Your task to perform on an android device: Go to wifi settings Image 0: 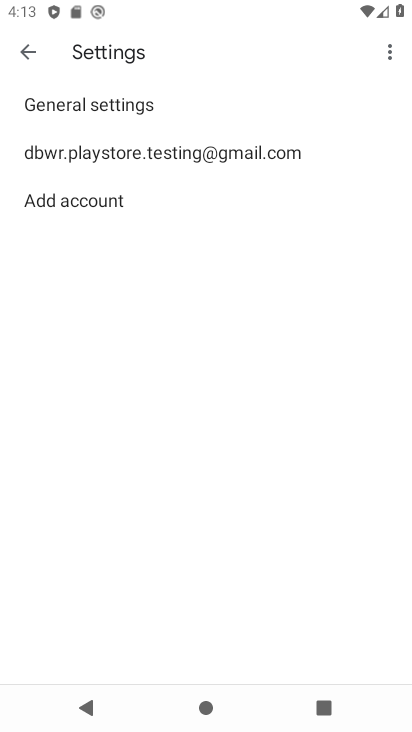
Step 0: press home button
Your task to perform on an android device: Go to wifi settings Image 1: 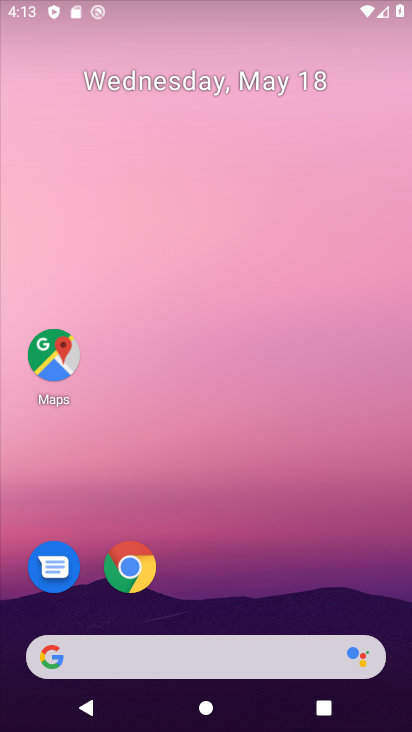
Step 1: drag from (173, 656) to (173, 217)
Your task to perform on an android device: Go to wifi settings Image 2: 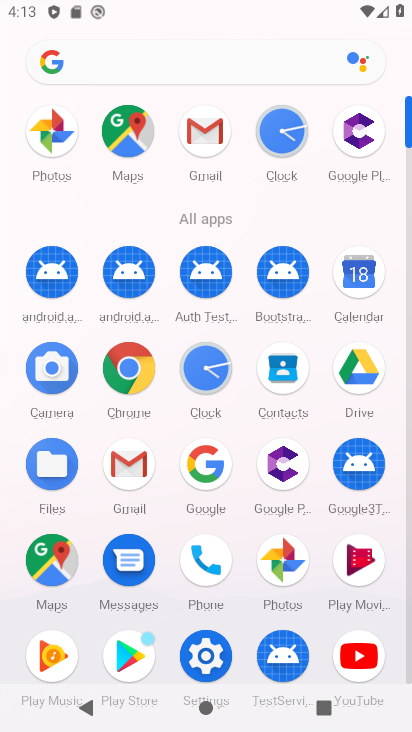
Step 2: click (211, 648)
Your task to perform on an android device: Go to wifi settings Image 3: 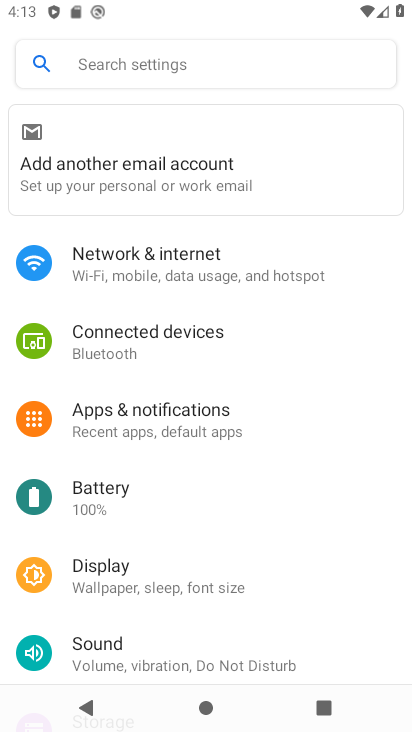
Step 3: click (159, 265)
Your task to perform on an android device: Go to wifi settings Image 4: 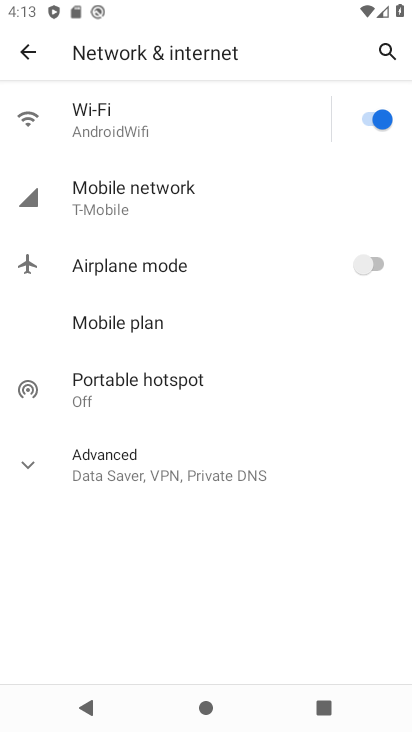
Step 4: click (121, 125)
Your task to perform on an android device: Go to wifi settings Image 5: 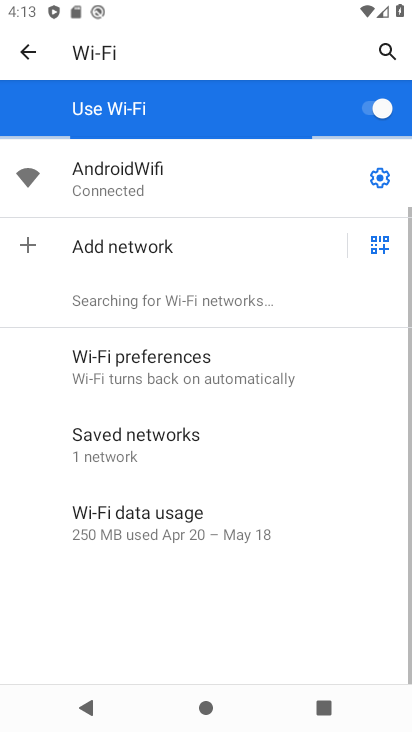
Step 5: click (383, 180)
Your task to perform on an android device: Go to wifi settings Image 6: 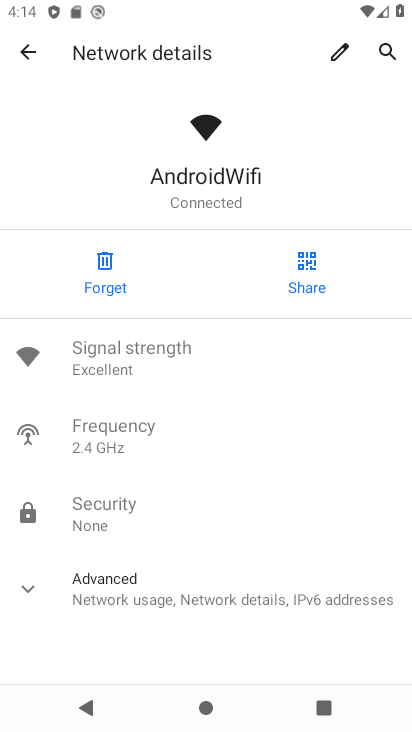
Step 6: click (120, 599)
Your task to perform on an android device: Go to wifi settings Image 7: 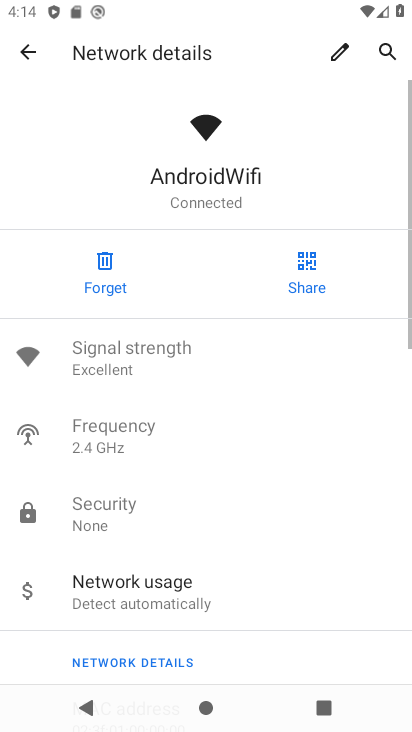
Step 7: task complete